Your task to perform on an android device: open a bookmark in the chrome app Image 0: 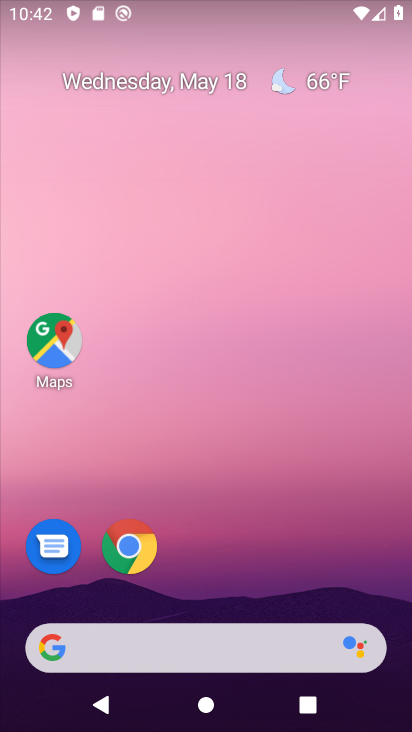
Step 0: click (128, 545)
Your task to perform on an android device: open a bookmark in the chrome app Image 1: 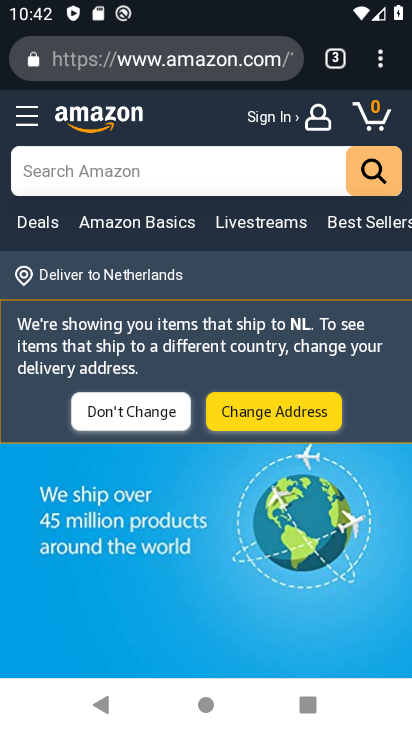
Step 1: click (382, 67)
Your task to perform on an android device: open a bookmark in the chrome app Image 2: 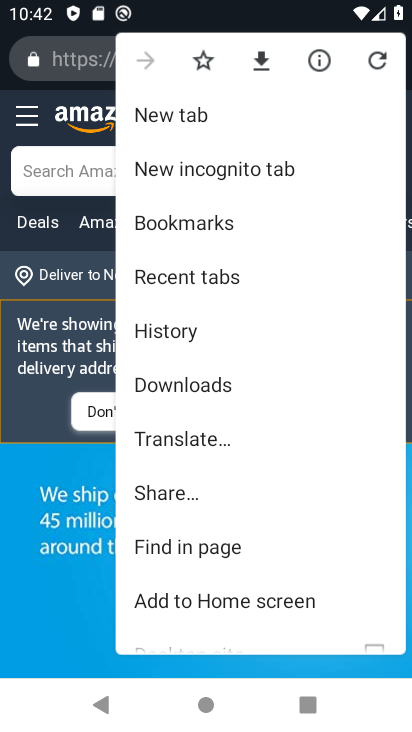
Step 2: click (196, 226)
Your task to perform on an android device: open a bookmark in the chrome app Image 3: 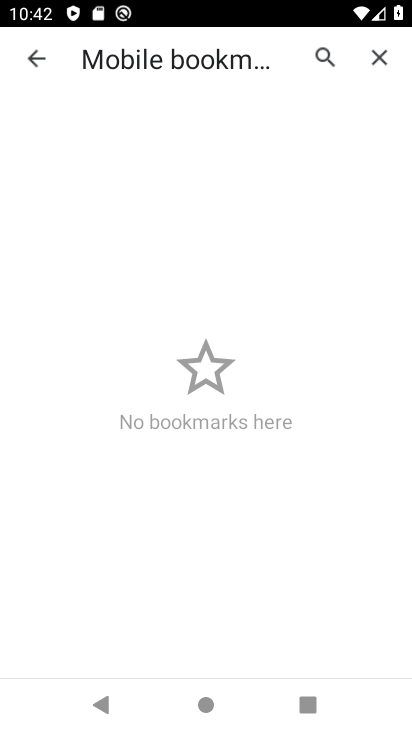
Step 3: task complete